Your task to perform on an android device: Go to Android settings Image 0: 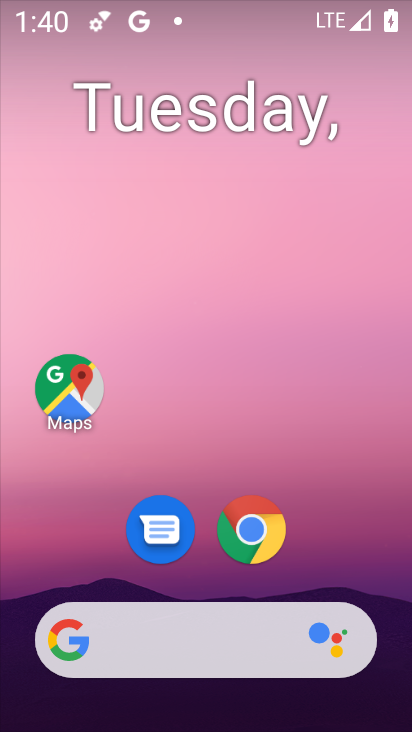
Step 0: click (347, 26)
Your task to perform on an android device: Go to Android settings Image 1: 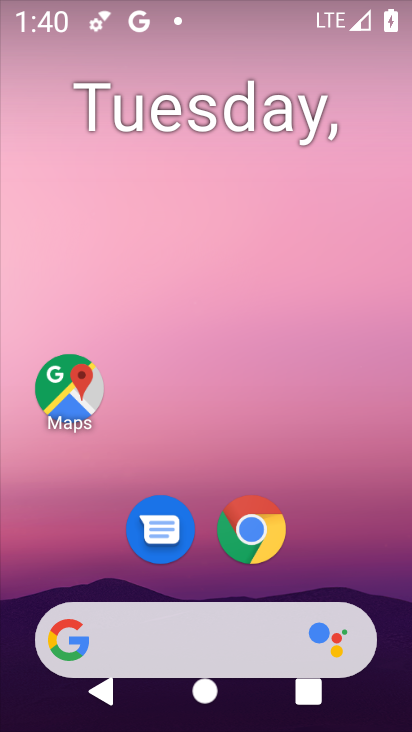
Step 1: drag from (363, 333) to (334, 92)
Your task to perform on an android device: Go to Android settings Image 2: 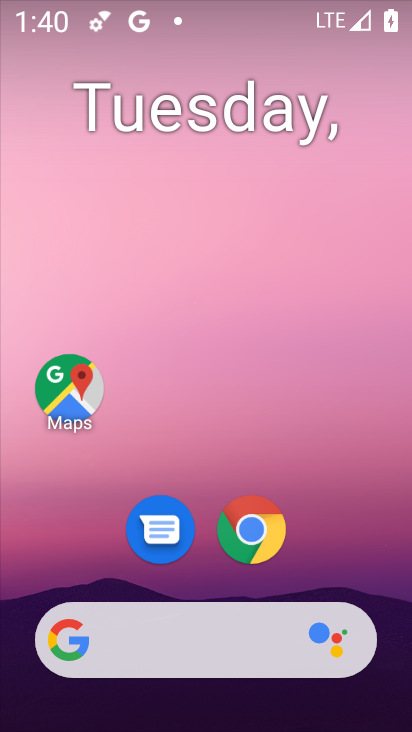
Step 2: drag from (365, 467) to (344, 68)
Your task to perform on an android device: Go to Android settings Image 3: 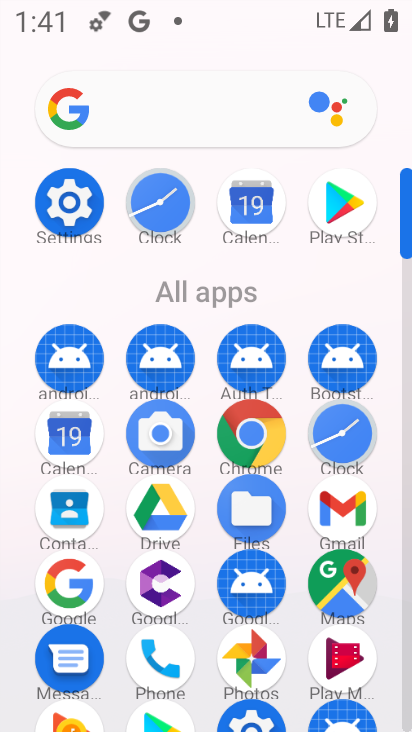
Step 3: click (87, 197)
Your task to perform on an android device: Go to Android settings Image 4: 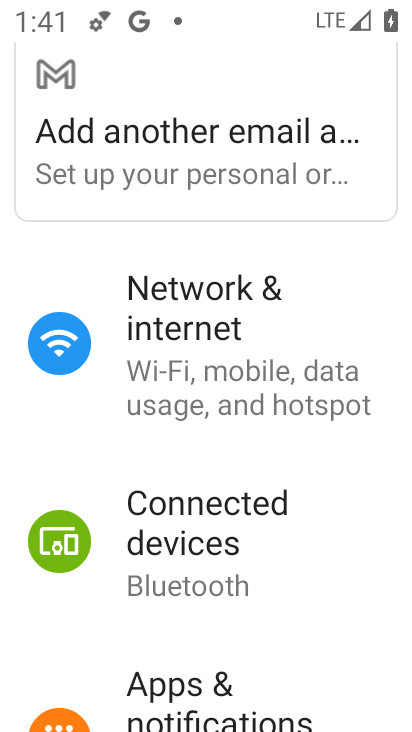
Step 4: drag from (346, 677) to (376, 206)
Your task to perform on an android device: Go to Android settings Image 5: 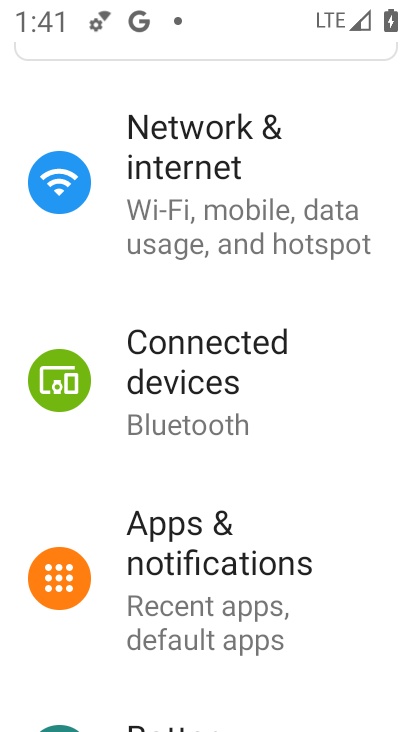
Step 5: drag from (339, 446) to (331, 294)
Your task to perform on an android device: Go to Android settings Image 6: 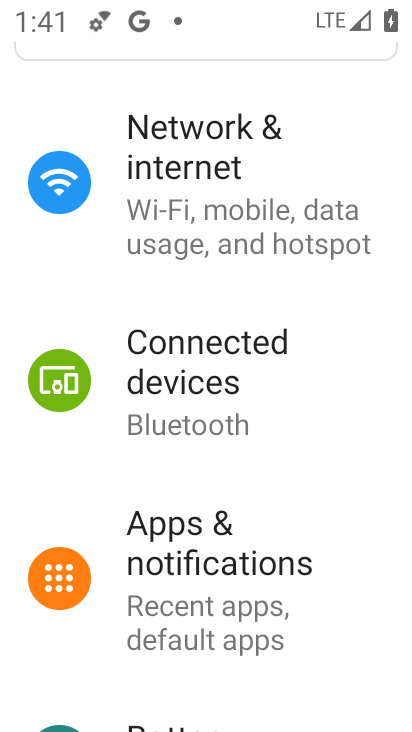
Step 6: drag from (367, 320) to (365, 268)
Your task to perform on an android device: Go to Android settings Image 7: 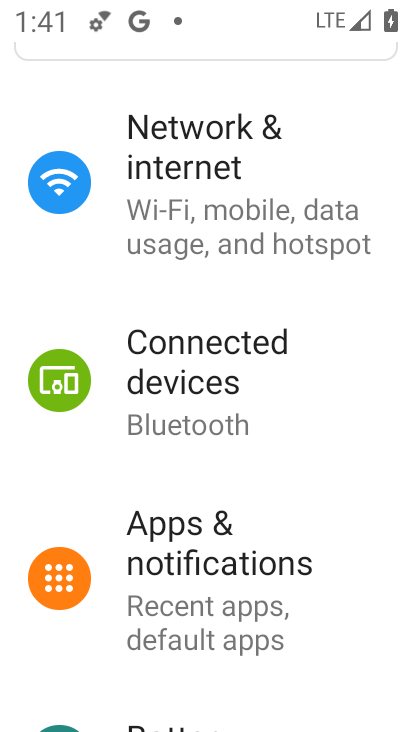
Step 7: click (393, 139)
Your task to perform on an android device: Go to Android settings Image 8: 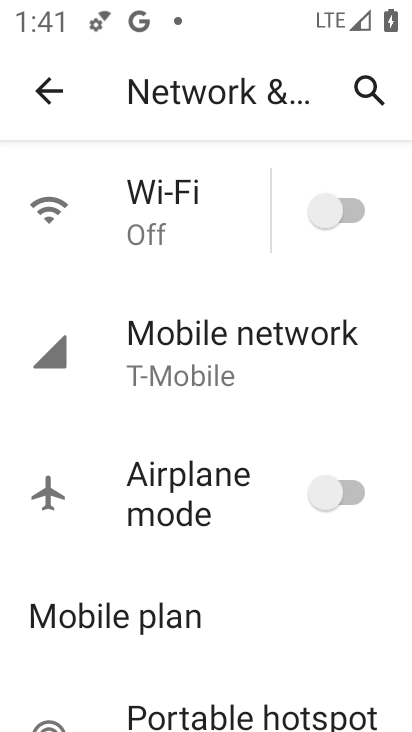
Step 8: click (366, 159)
Your task to perform on an android device: Go to Android settings Image 9: 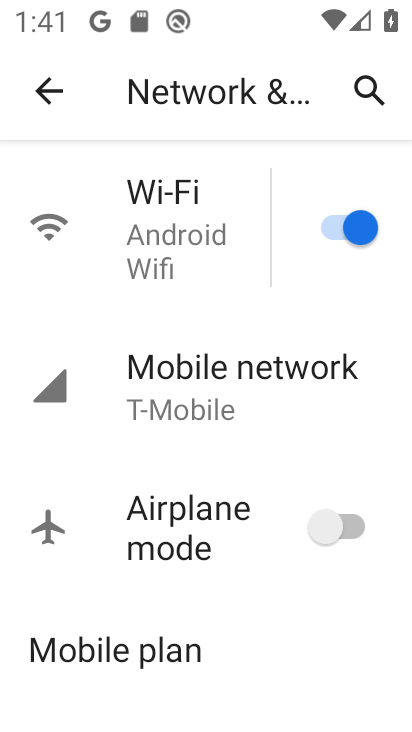
Step 9: click (46, 90)
Your task to perform on an android device: Go to Android settings Image 10: 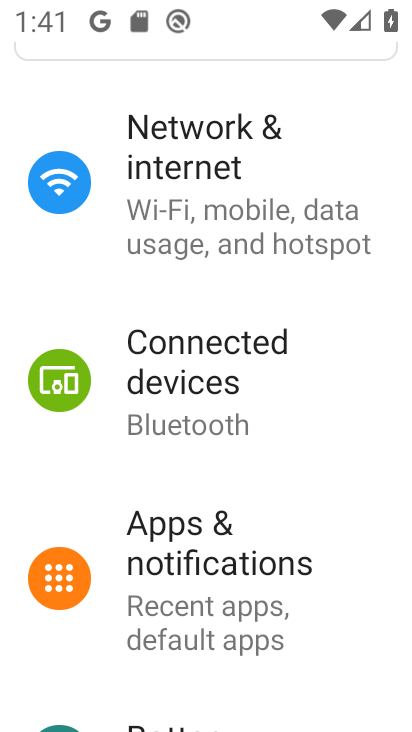
Step 10: drag from (325, 525) to (326, 236)
Your task to perform on an android device: Go to Android settings Image 11: 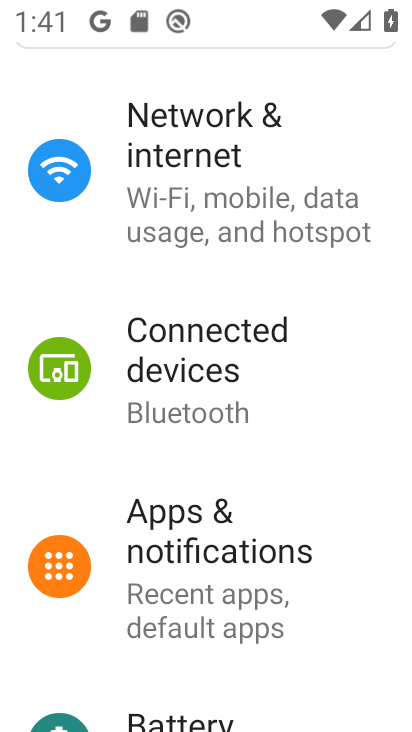
Step 11: drag from (366, 479) to (375, 223)
Your task to perform on an android device: Go to Android settings Image 12: 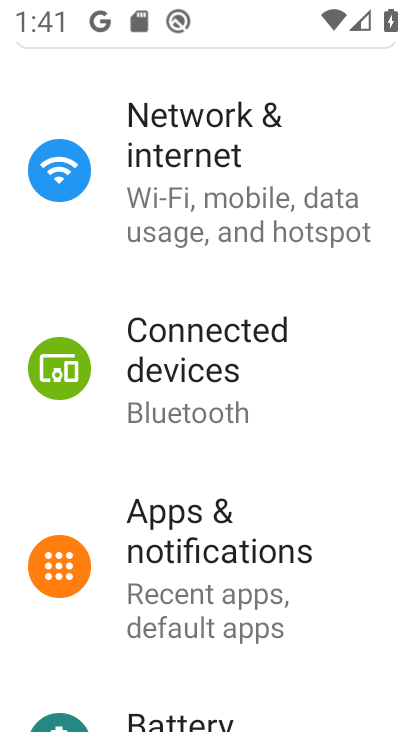
Step 12: drag from (408, 213) to (411, 302)
Your task to perform on an android device: Go to Android settings Image 13: 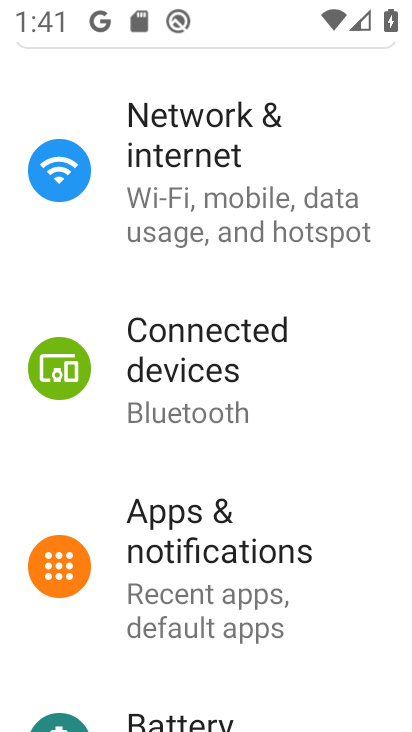
Step 13: drag from (405, 303) to (408, 114)
Your task to perform on an android device: Go to Android settings Image 14: 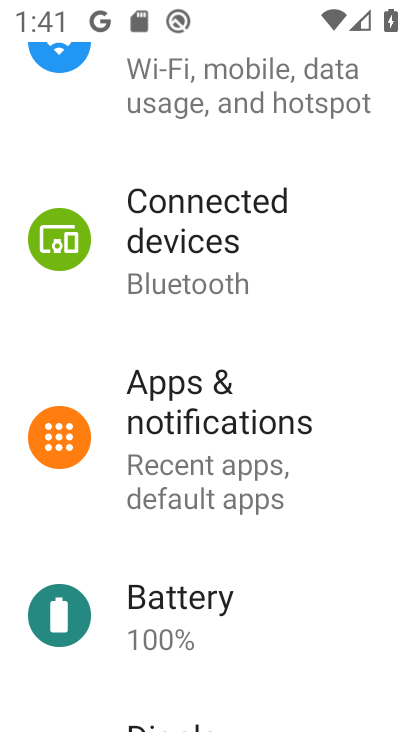
Step 14: drag from (408, 361) to (394, 84)
Your task to perform on an android device: Go to Android settings Image 15: 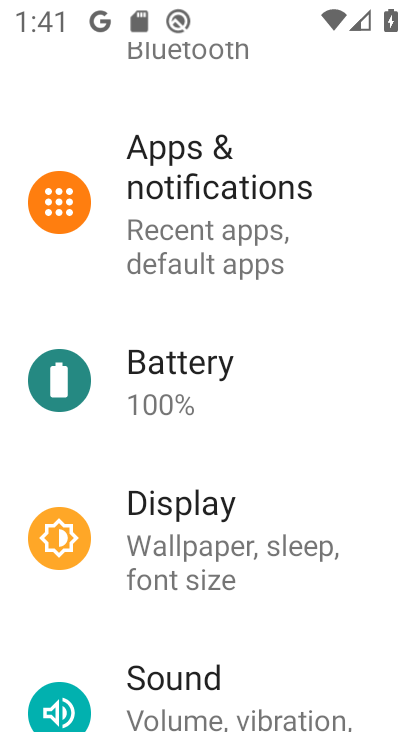
Step 15: drag from (401, 415) to (410, 194)
Your task to perform on an android device: Go to Android settings Image 16: 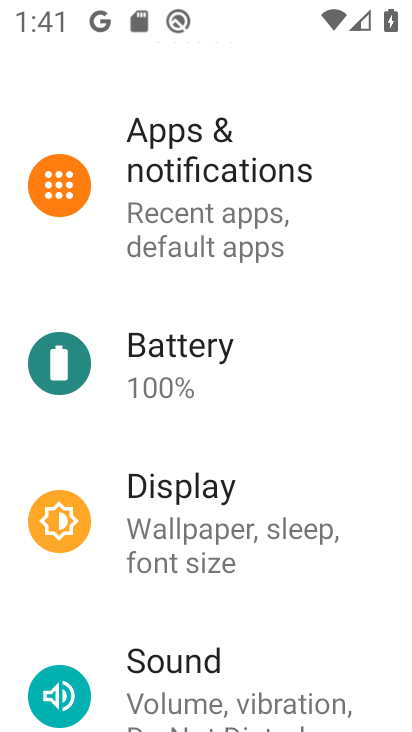
Step 16: drag from (398, 397) to (381, 133)
Your task to perform on an android device: Go to Android settings Image 17: 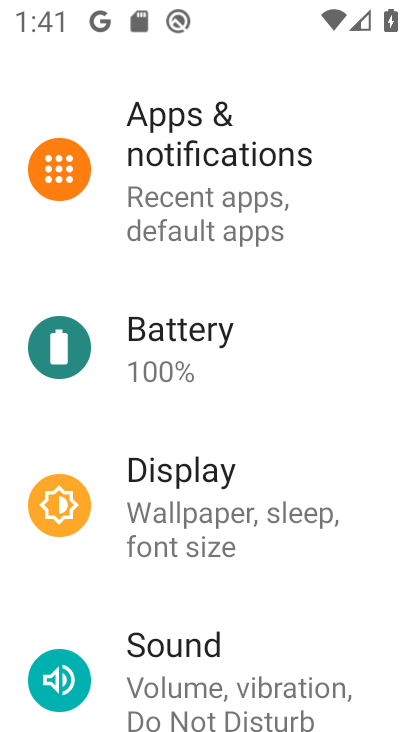
Step 17: drag from (407, 415) to (406, 95)
Your task to perform on an android device: Go to Android settings Image 18: 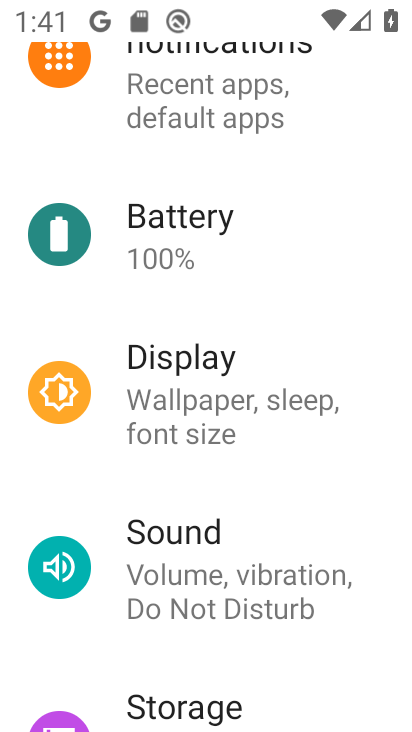
Step 18: drag from (402, 415) to (411, 155)
Your task to perform on an android device: Go to Android settings Image 19: 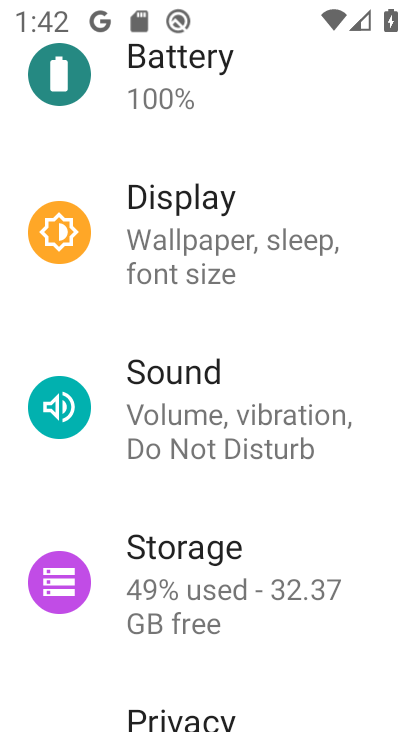
Step 19: drag from (404, 509) to (389, 147)
Your task to perform on an android device: Go to Android settings Image 20: 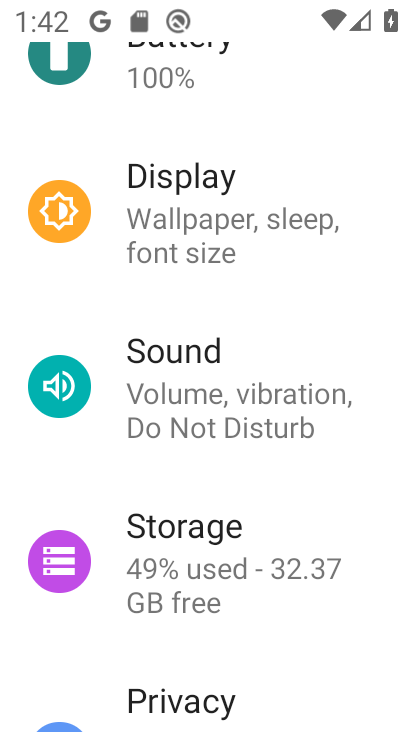
Step 20: drag from (406, 480) to (397, 161)
Your task to perform on an android device: Go to Android settings Image 21: 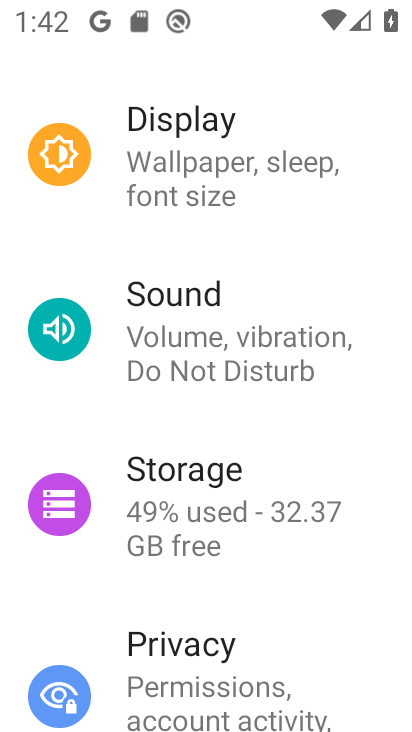
Step 21: drag from (404, 552) to (410, 213)
Your task to perform on an android device: Go to Android settings Image 22: 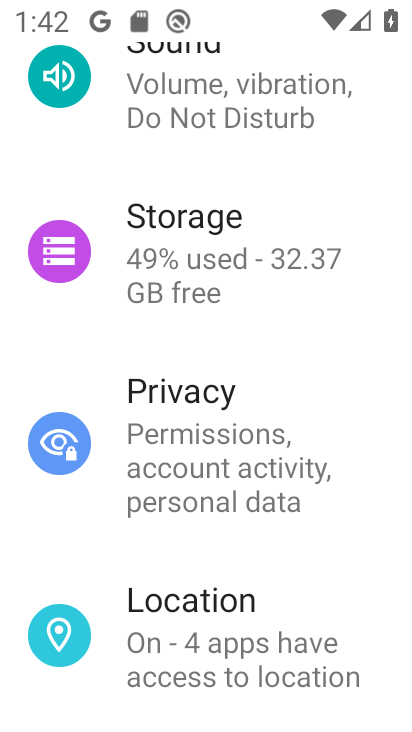
Step 22: click (378, 110)
Your task to perform on an android device: Go to Android settings Image 23: 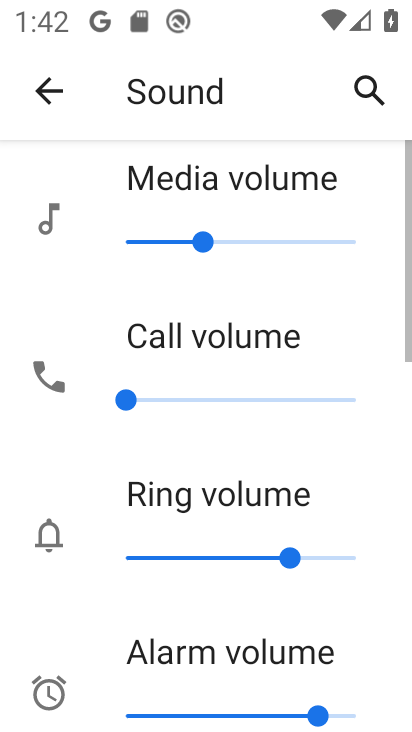
Step 23: click (393, 79)
Your task to perform on an android device: Go to Android settings Image 24: 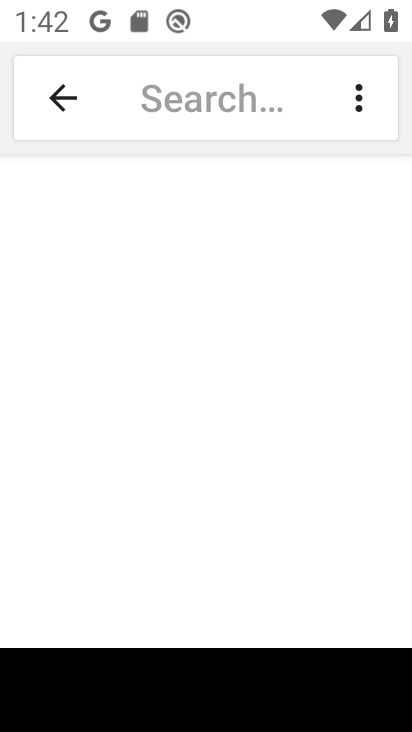
Step 24: press back button
Your task to perform on an android device: Go to Android settings Image 25: 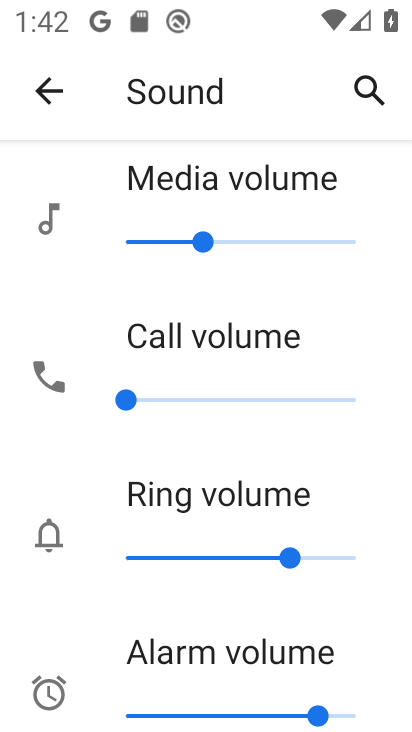
Step 25: press back button
Your task to perform on an android device: Go to Android settings Image 26: 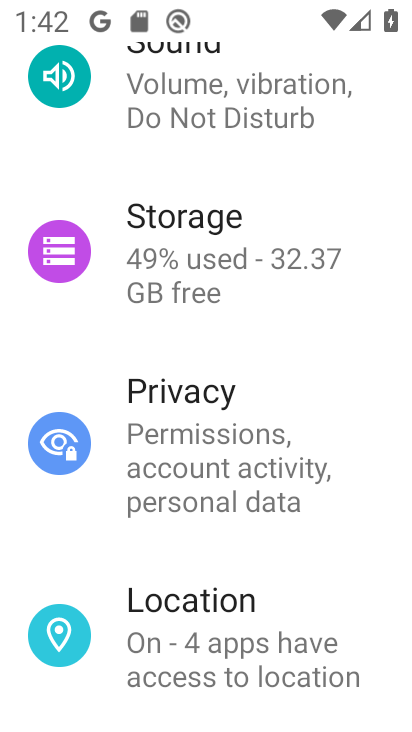
Step 26: drag from (406, 420) to (399, 101)
Your task to perform on an android device: Go to Android settings Image 27: 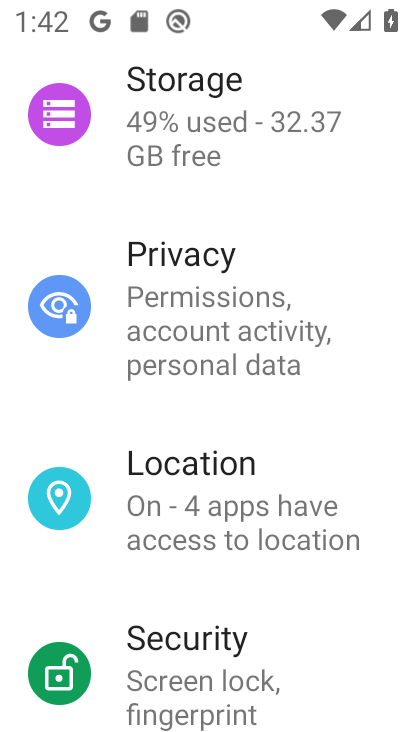
Step 27: drag from (401, 458) to (401, 175)
Your task to perform on an android device: Go to Android settings Image 28: 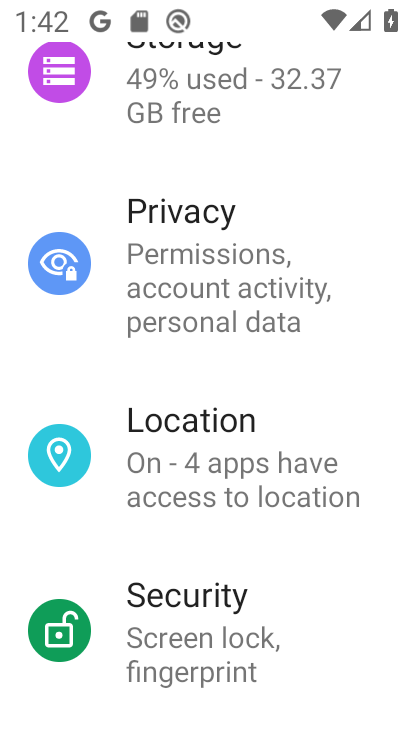
Step 28: drag from (401, 460) to (381, 135)
Your task to perform on an android device: Go to Android settings Image 29: 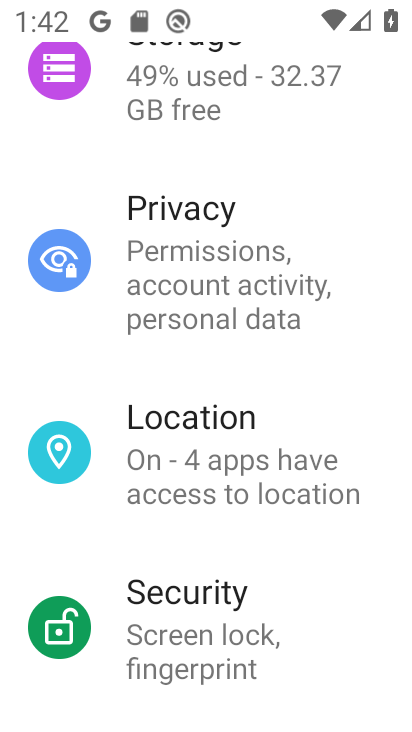
Step 29: drag from (400, 499) to (410, 162)
Your task to perform on an android device: Go to Android settings Image 30: 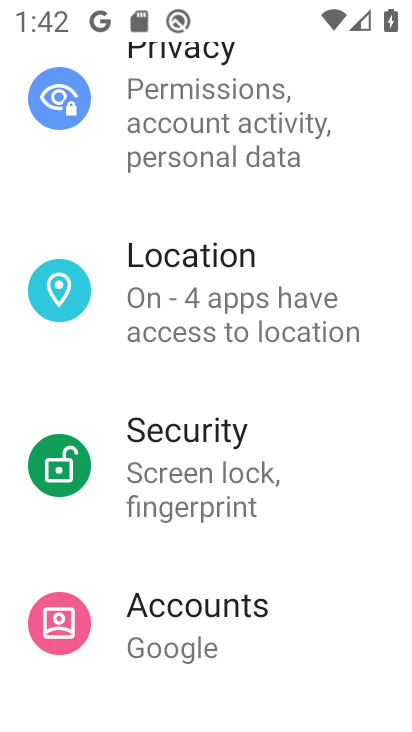
Step 30: drag from (399, 449) to (402, 179)
Your task to perform on an android device: Go to Android settings Image 31: 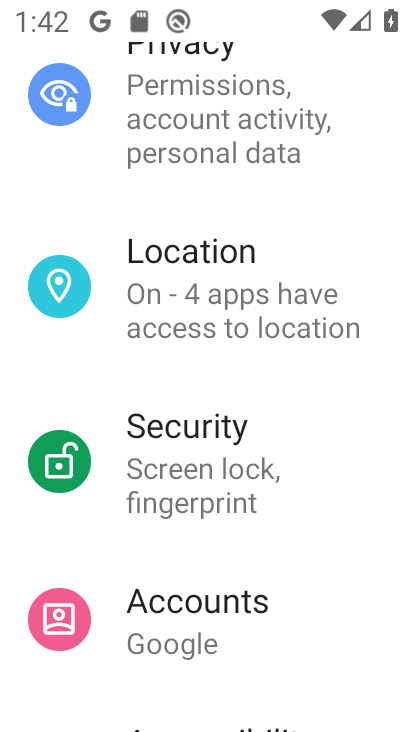
Step 31: drag from (397, 527) to (411, 167)
Your task to perform on an android device: Go to Android settings Image 32: 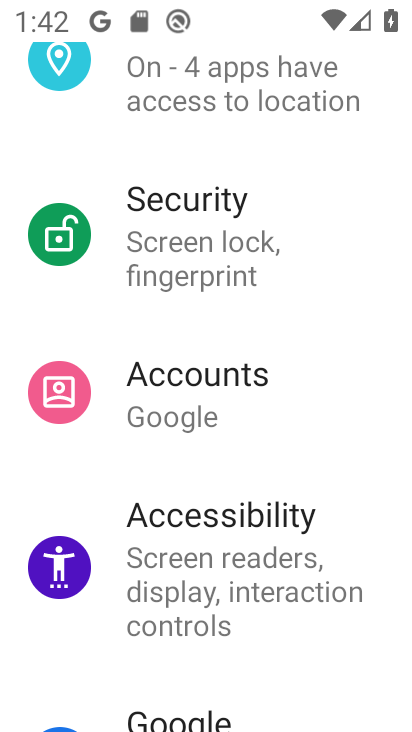
Step 32: drag from (392, 516) to (366, 160)
Your task to perform on an android device: Go to Android settings Image 33: 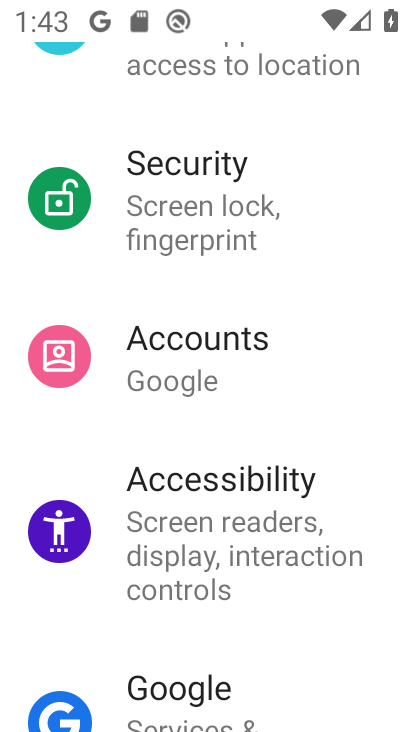
Step 33: drag from (397, 588) to (381, 220)
Your task to perform on an android device: Go to Android settings Image 34: 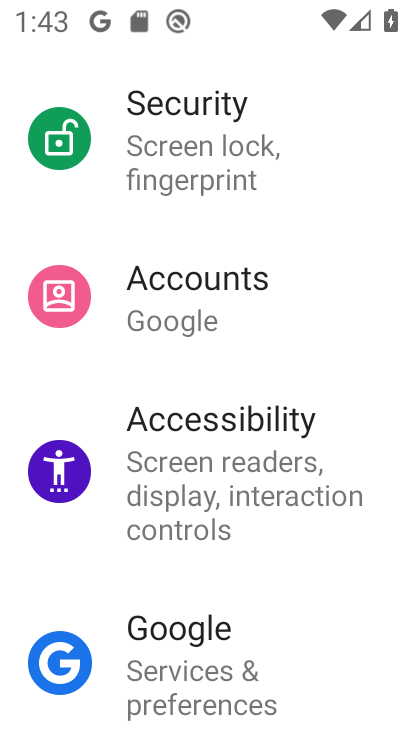
Step 34: drag from (385, 585) to (376, 258)
Your task to perform on an android device: Go to Android settings Image 35: 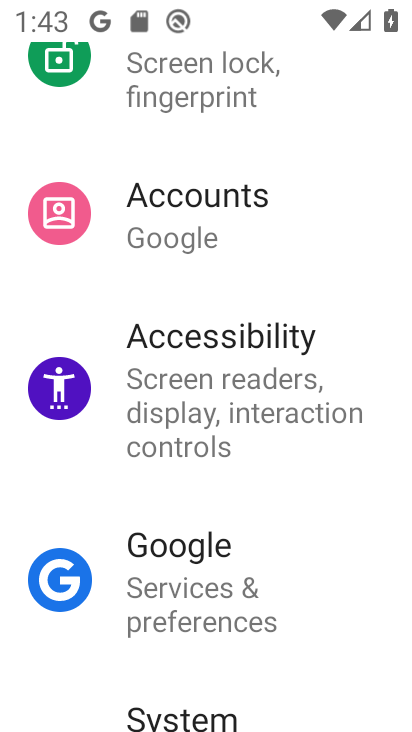
Step 35: drag from (385, 630) to (369, 233)
Your task to perform on an android device: Go to Android settings Image 36: 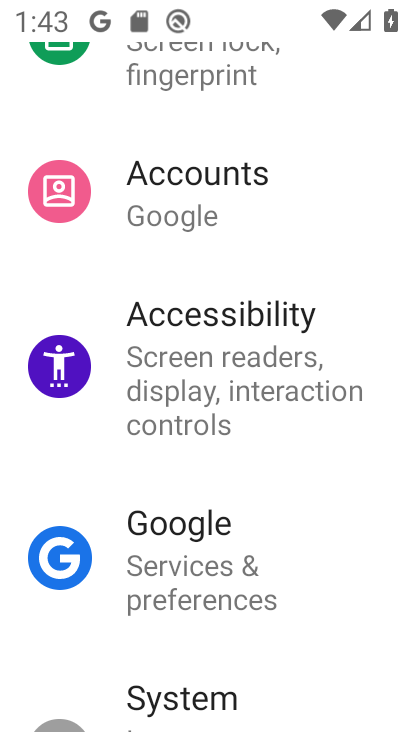
Step 36: drag from (389, 638) to (390, 104)
Your task to perform on an android device: Go to Android settings Image 37: 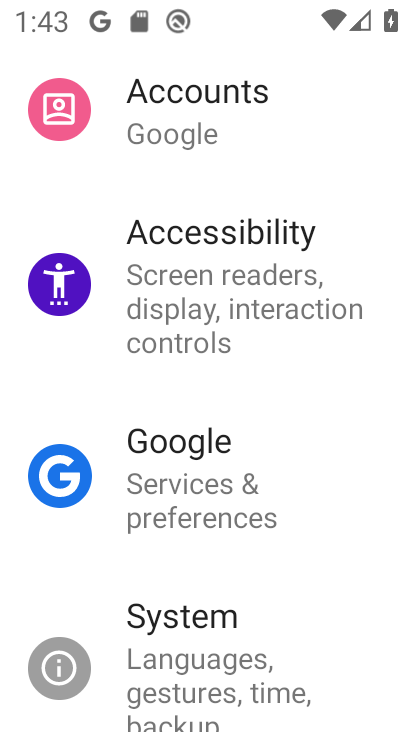
Step 37: drag from (384, 389) to (385, 93)
Your task to perform on an android device: Go to Android settings Image 38: 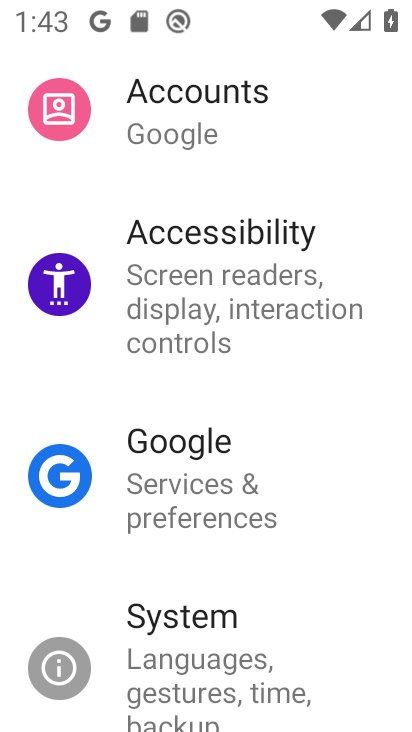
Step 38: drag from (383, 339) to (366, 121)
Your task to perform on an android device: Go to Android settings Image 39: 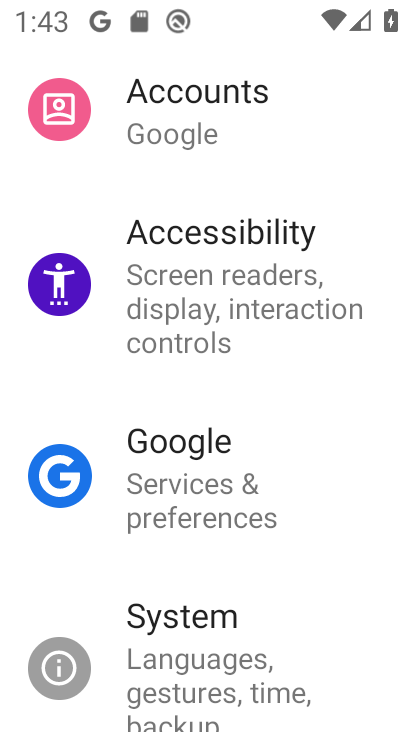
Step 39: drag from (385, 570) to (378, 171)
Your task to perform on an android device: Go to Android settings Image 40: 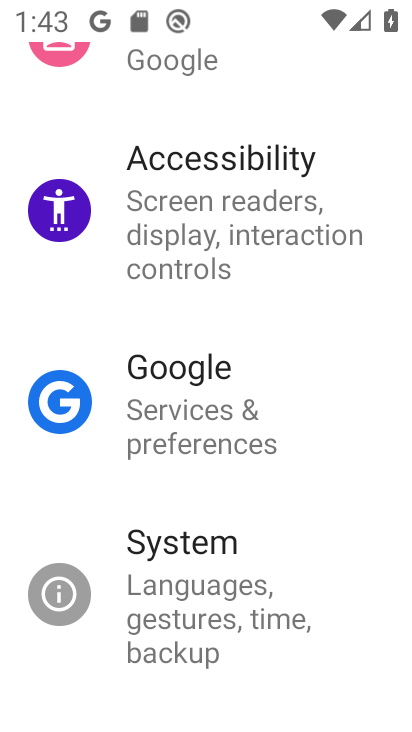
Step 40: click (367, 251)
Your task to perform on an android device: Go to Android settings Image 41: 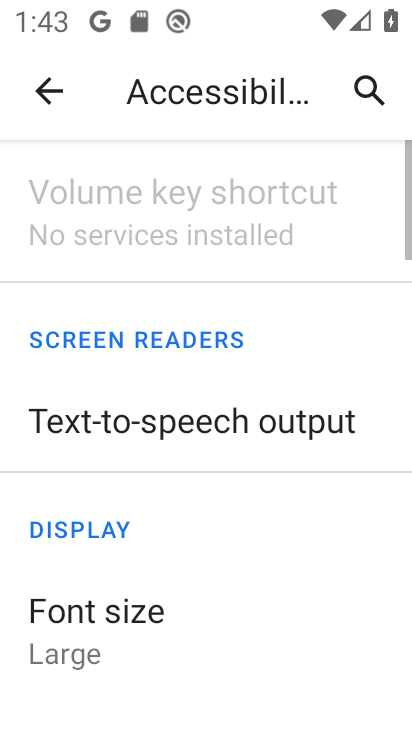
Step 41: drag from (375, 482) to (334, 164)
Your task to perform on an android device: Go to Android settings Image 42: 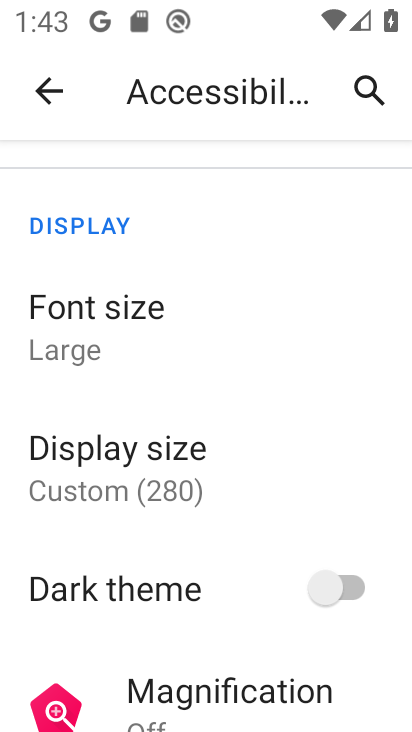
Step 42: click (42, 83)
Your task to perform on an android device: Go to Android settings Image 43: 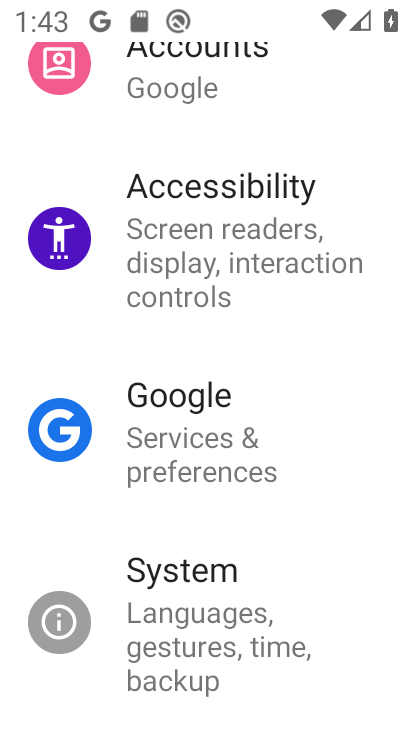
Step 43: drag from (380, 632) to (381, 142)
Your task to perform on an android device: Go to Android settings Image 44: 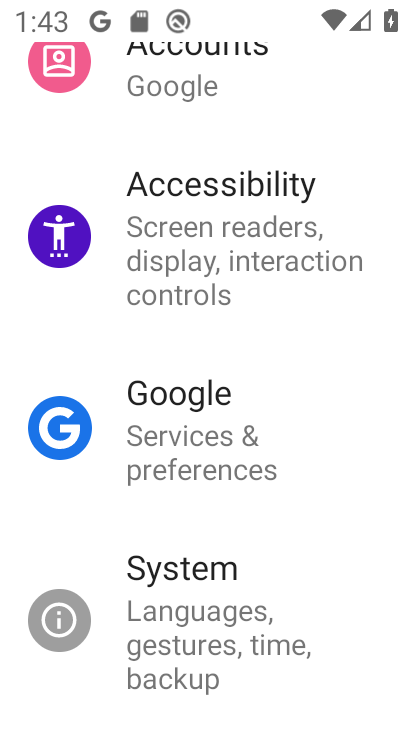
Step 44: drag from (382, 649) to (392, 162)
Your task to perform on an android device: Go to Android settings Image 45: 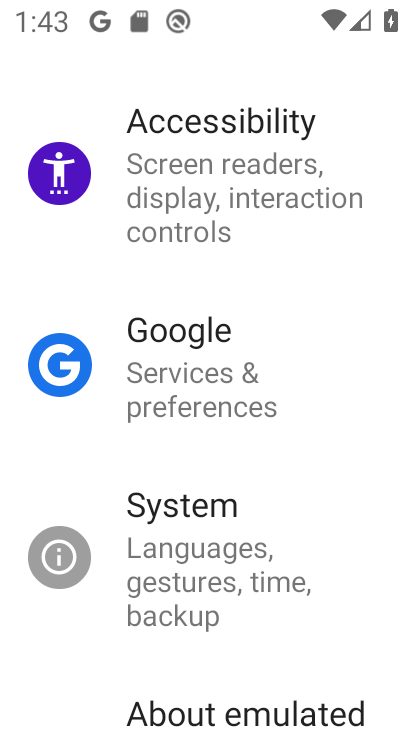
Step 45: click (204, 708)
Your task to perform on an android device: Go to Android settings Image 46: 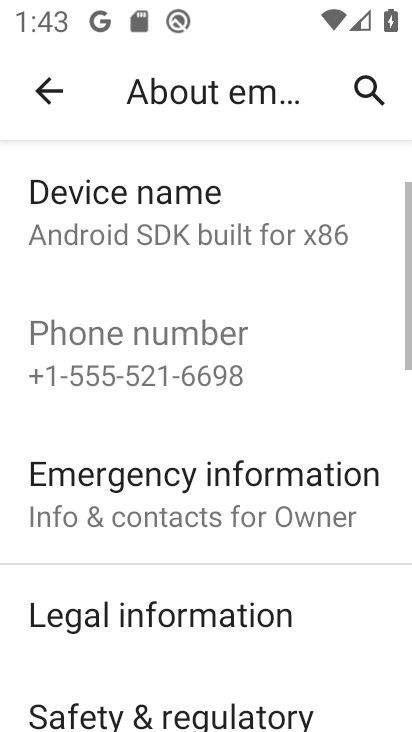
Step 46: drag from (387, 692) to (410, 140)
Your task to perform on an android device: Go to Android settings Image 47: 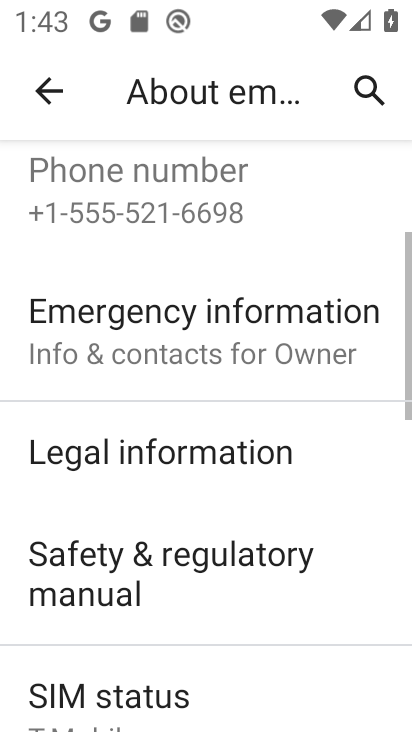
Step 47: drag from (402, 279) to (410, 495)
Your task to perform on an android device: Go to Android settings Image 48: 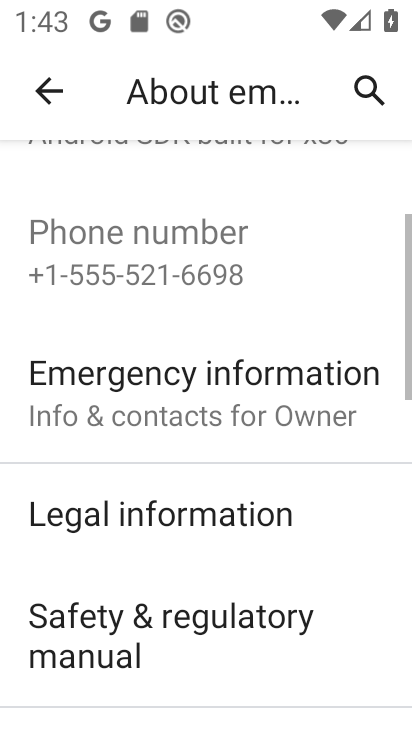
Step 48: drag from (408, 354) to (391, 176)
Your task to perform on an android device: Go to Android settings Image 49: 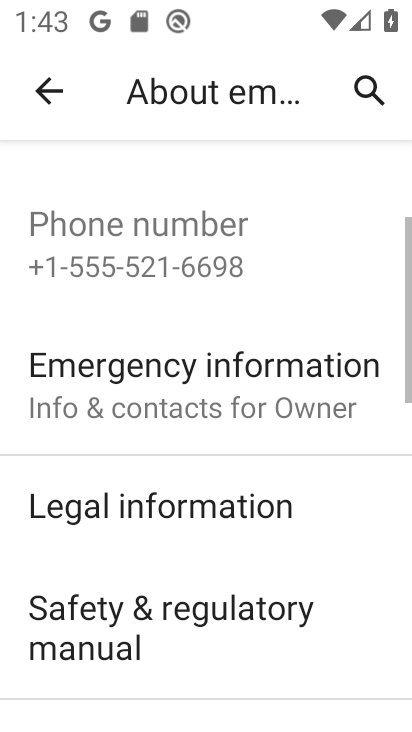
Step 49: click (407, 342)
Your task to perform on an android device: Go to Android settings Image 50: 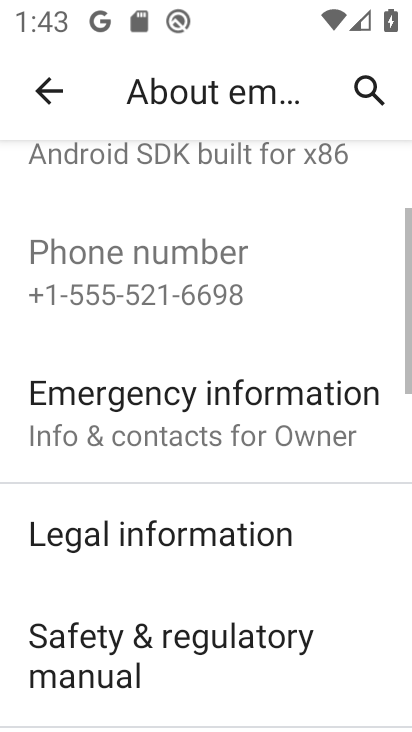
Step 50: task complete